Your task to perform on an android device: Open maps Image 0: 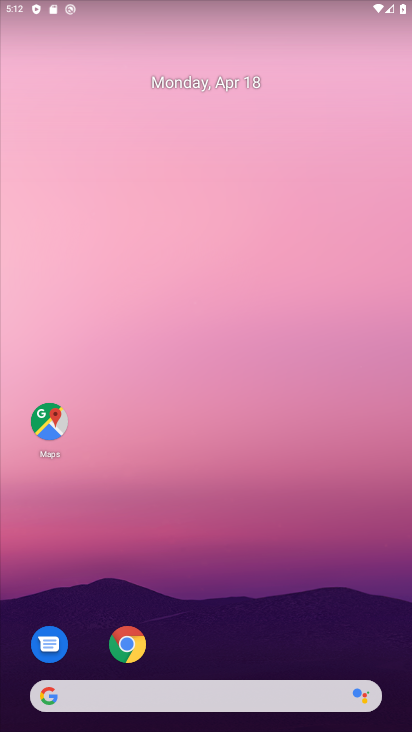
Step 0: press home button
Your task to perform on an android device: Open maps Image 1: 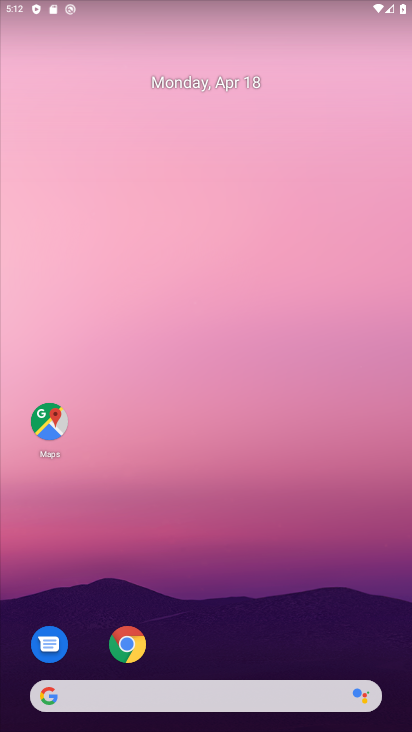
Step 1: click (52, 414)
Your task to perform on an android device: Open maps Image 2: 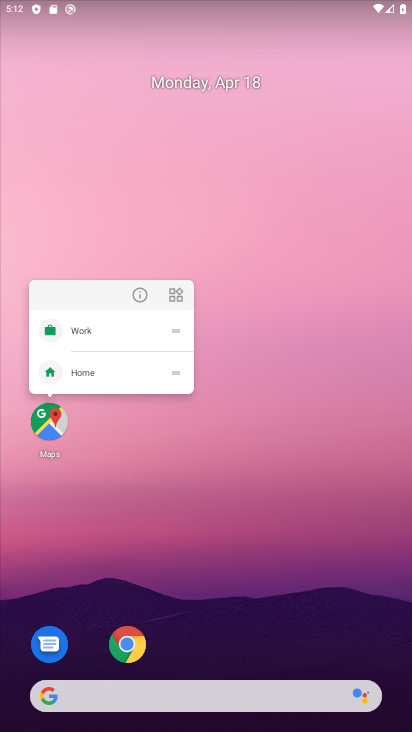
Step 2: click (49, 465)
Your task to perform on an android device: Open maps Image 3: 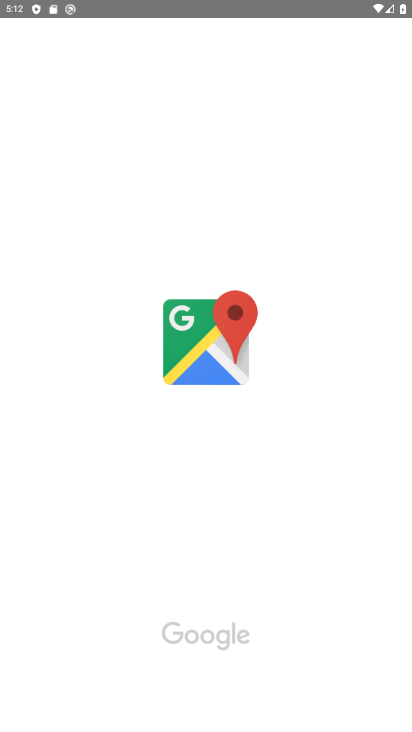
Step 3: click (46, 417)
Your task to perform on an android device: Open maps Image 4: 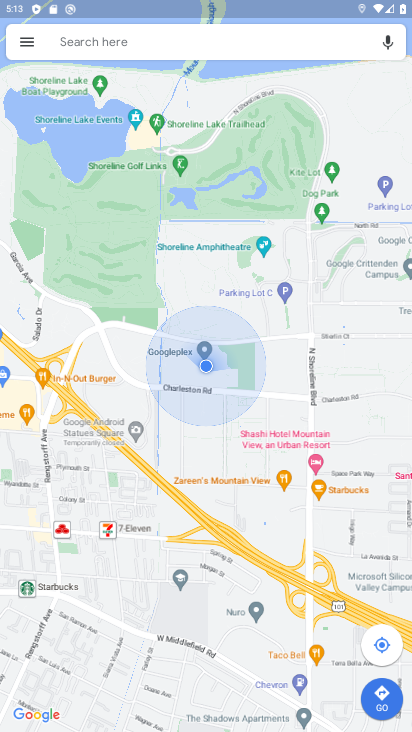
Step 4: task complete